Your task to perform on an android device: turn on translation in the chrome app Image 0: 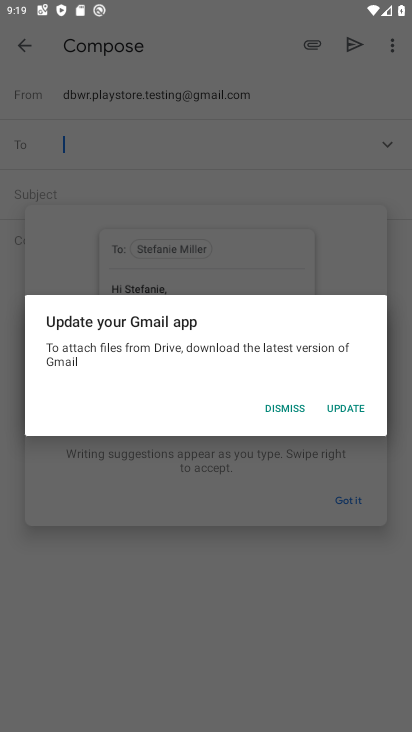
Step 0: press home button
Your task to perform on an android device: turn on translation in the chrome app Image 1: 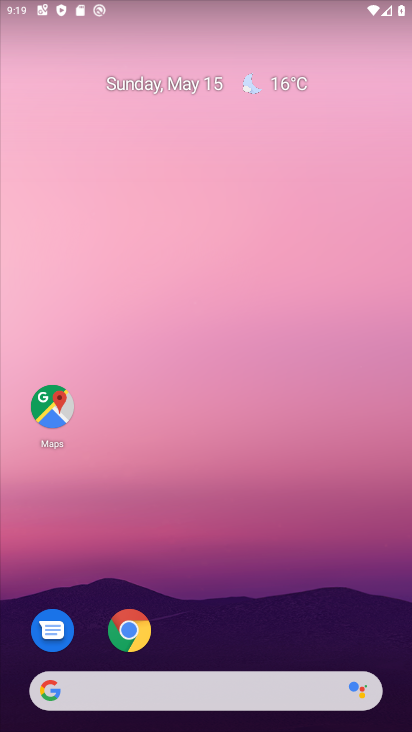
Step 1: click (130, 629)
Your task to perform on an android device: turn on translation in the chrome app Image 2: 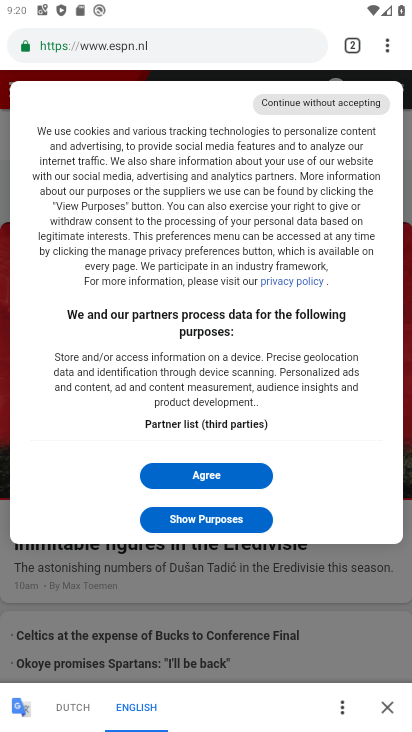
Step 2: click (229, 475)
Your task to perform on an android device: turn on translation in the chrome app Image 3: 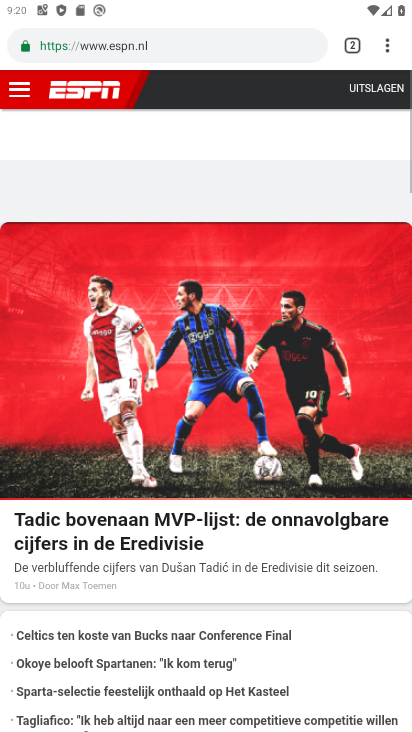
Step 3: drag from (389, 42) to (243, 502)
Your task to perform on an android device: turn on translation in the chrome app Image 4: 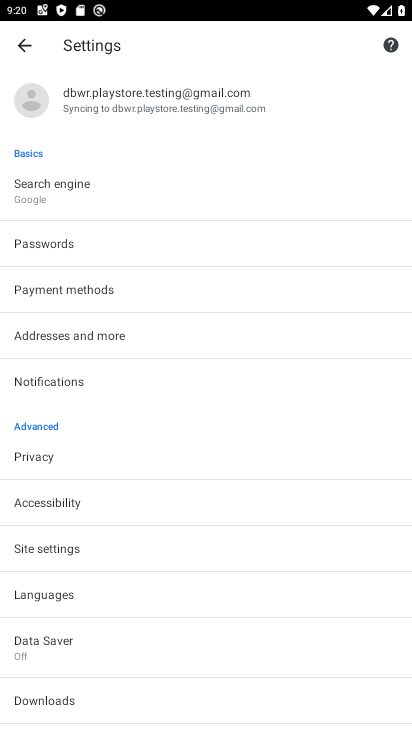
Step 4: click (94, 598)
Your task to perform on an android device: turn on translation in the chrome app Image 5: 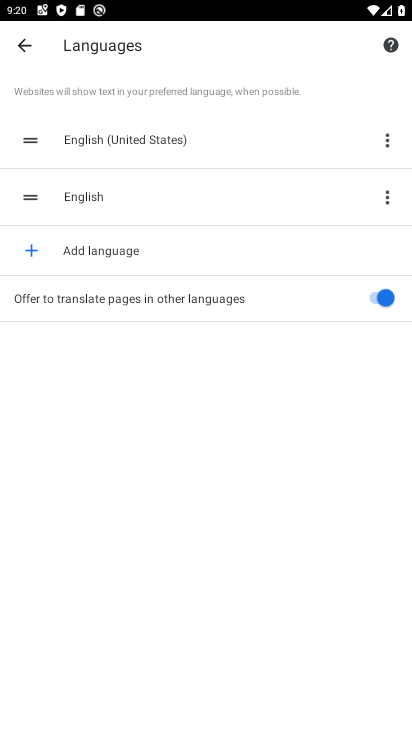
Step 5: task complete